Your task to perform on an android device: Go to battery settings Image 0: 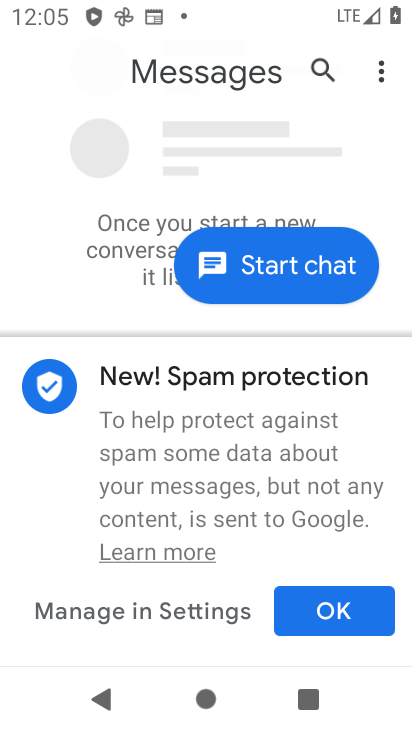
Step 0: press home button
Your task to perform on an android device: Go to battery settings Image 1: 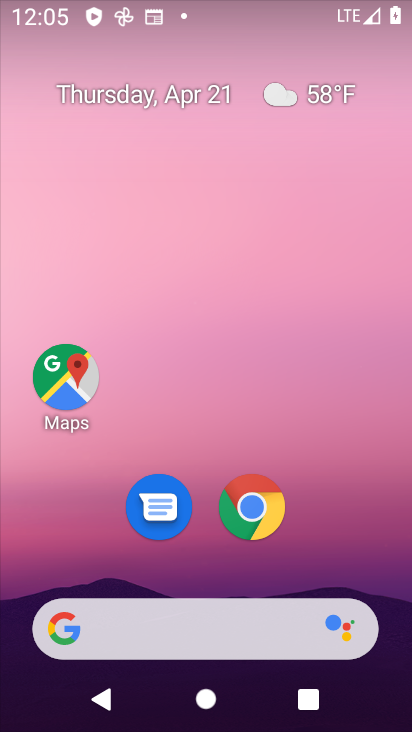
Step 1: drag from (348, 553) to (331, 99)
Your task to perform on an android device: Go to battery settings Image 2: 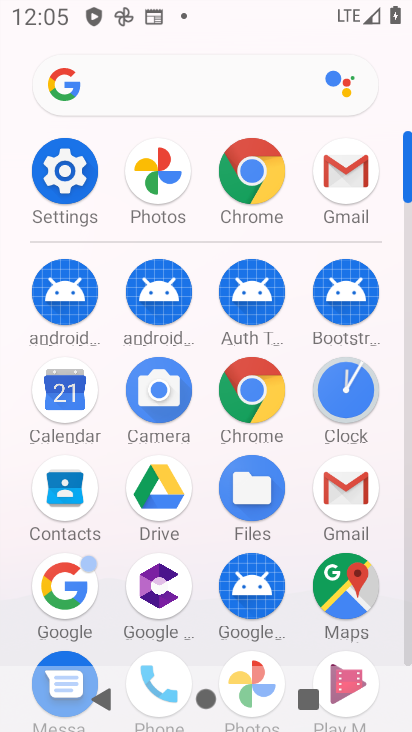
Step 2: click (67, 191)
Your task to perform on an android device: Go to battery settings Image 3: 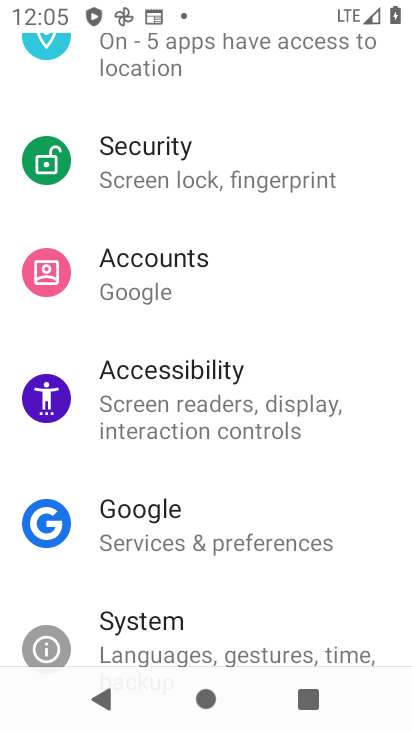
Step 3: drag from (372, 296) to (376, 432)
Your task to perform on an android device: Go to battery settings Image 4: 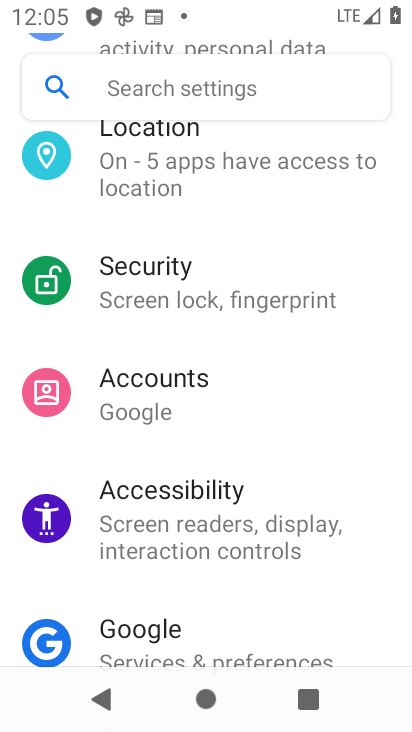
Step 4: drag from (379, 266) to (374, 415)
Your task to perform on an android device: Go to battery settings Image 5: 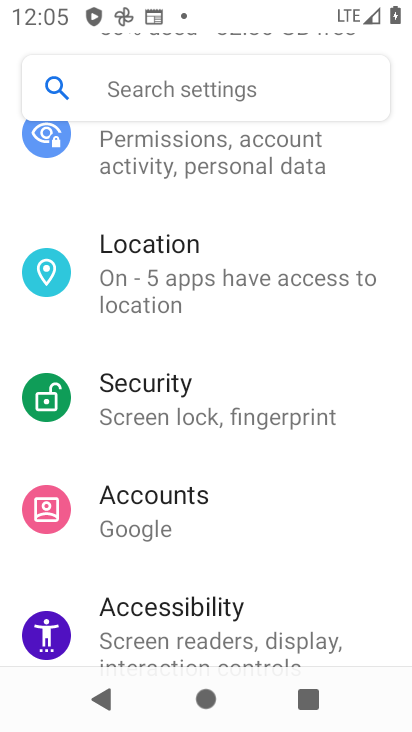
Step 5: drag from (379, 221) to (377, 388)
Your task to perform on an android device: Go to battery settings Image 6: 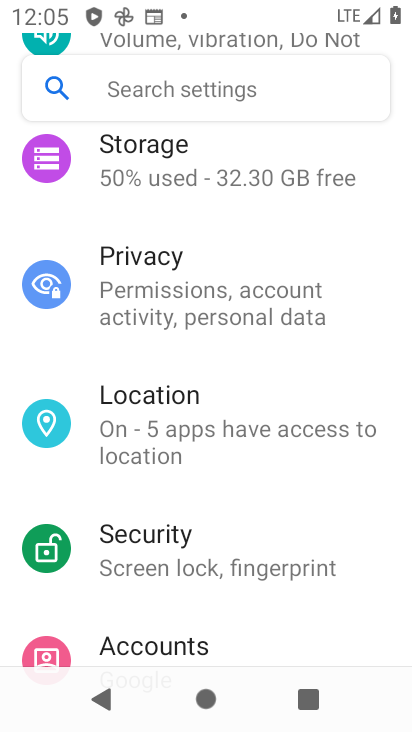
Step 6: drag from (377, 217) to (376, 366)
Your task to perform on an android device: Go to battery settings Image 7: 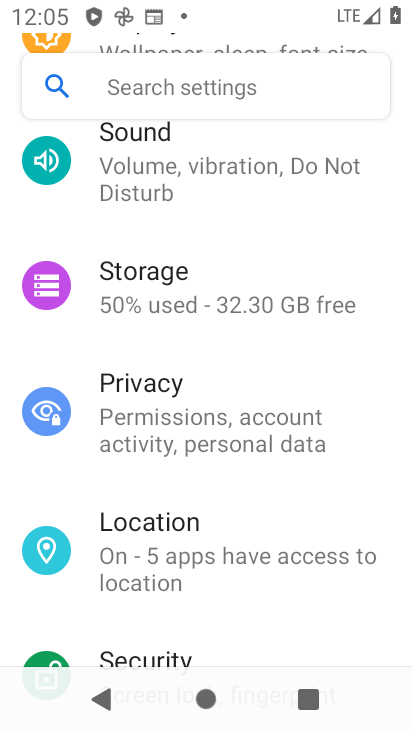
Step 7: drag from (379, 243) to (383, 460)
Your task to perform on an android device: Go to battery settings Image 8: 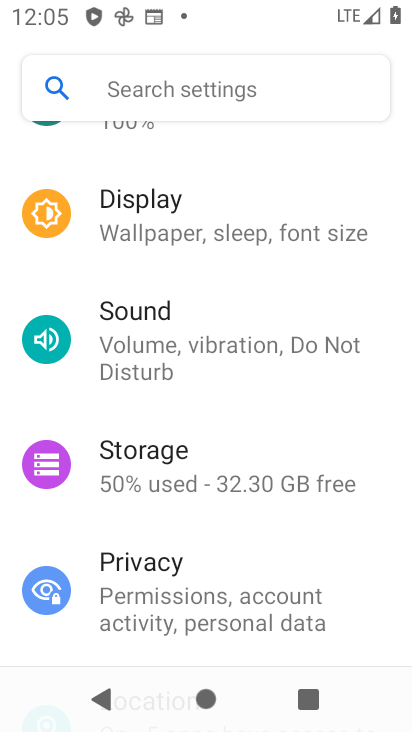
Step 8: drag from (381, 277) to (380, 477)
Your task to perform on an android device: Go to battery settings Image 9: 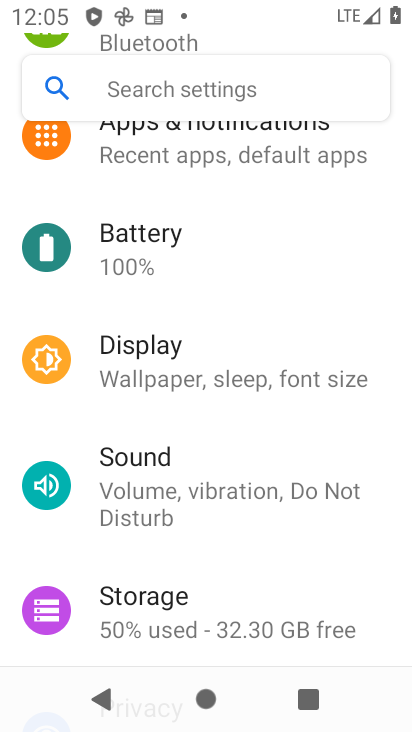
Step 9: drag from (381, 287) to (389, 447)
Your task to perform on an android device: Go to battery settings Image 10: 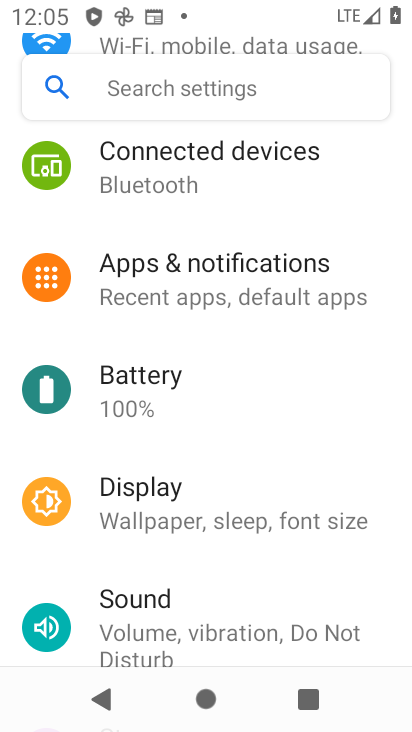
Step 10: drag from (377, 195) to (372, 410)
Your task to perform on an android device: Go to battery settings Image 11: 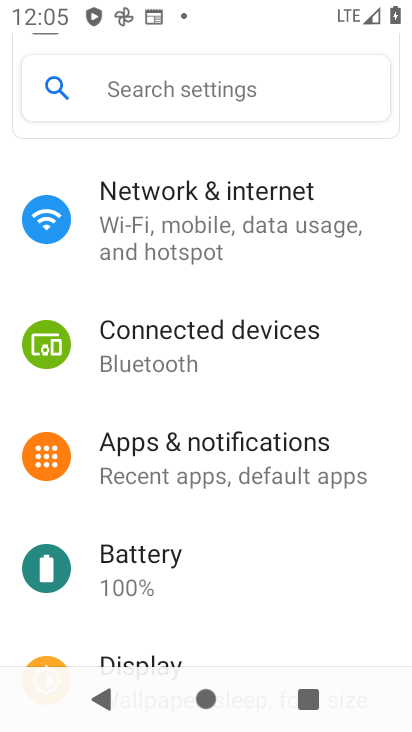
Step 11: drag from (371, 391) to (371, 258)
Your task to perform on an android device: Go to battery settings Image 12: 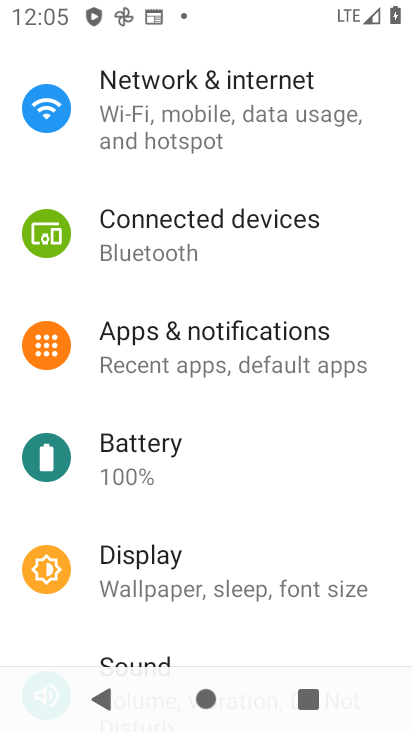
Step 12: click (196, 432)
Your task to perform on an android device: Go to battery settings Image 13: 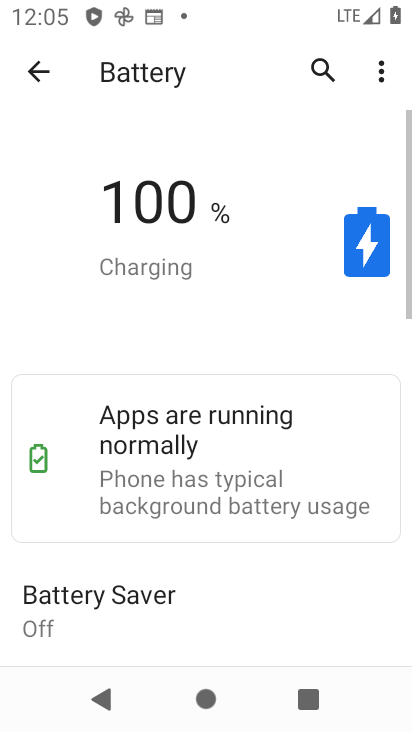
Step 13: task complete